Your task to perform on an android device: Open location settings Image 0: 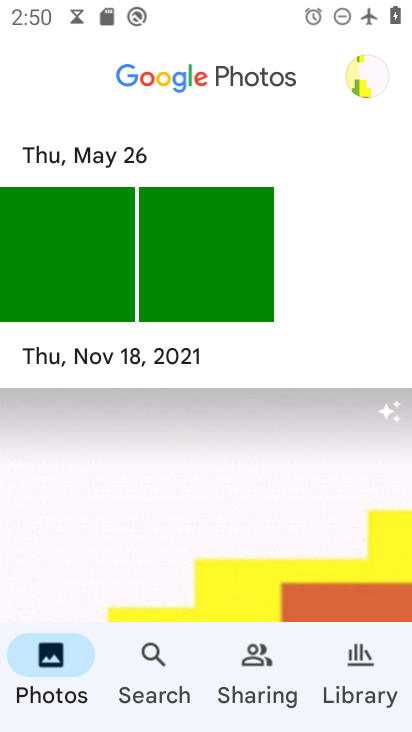
Step 0: press home button
Your task to perform on an android device: Open location settings Image 1: 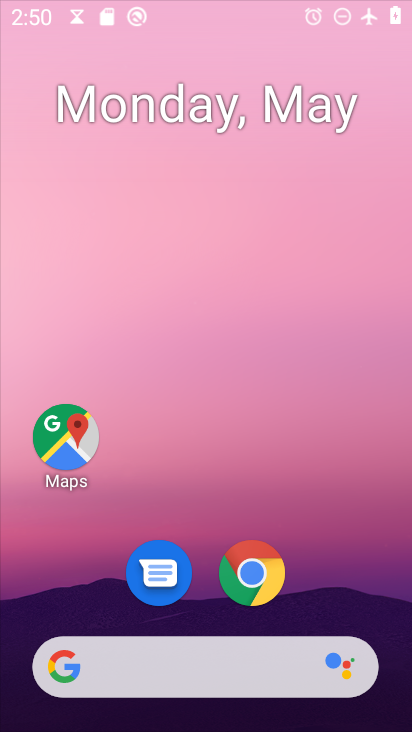
Step 1: drag from (289, 637) to (234, 19)
Your task to perform on an android device: Open location settings Image 2: 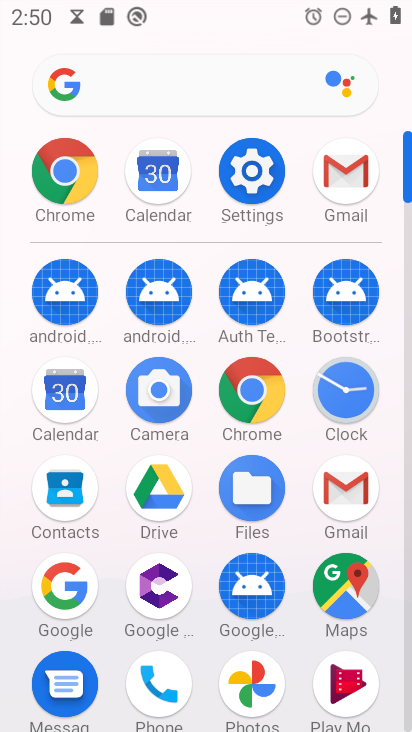
Step 2: click (253, 173)
Your task to perform on an android device: Open location settings Image 3: 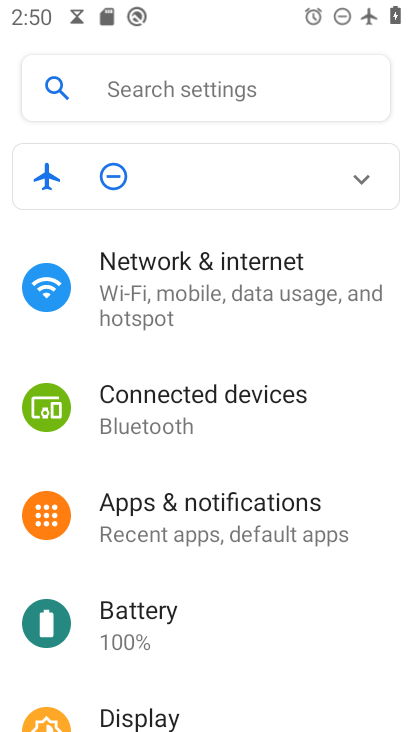
Step 3: drag from (229, 583) to (250, 130)
Your task to perform on an android device: Open location settings Image 4: 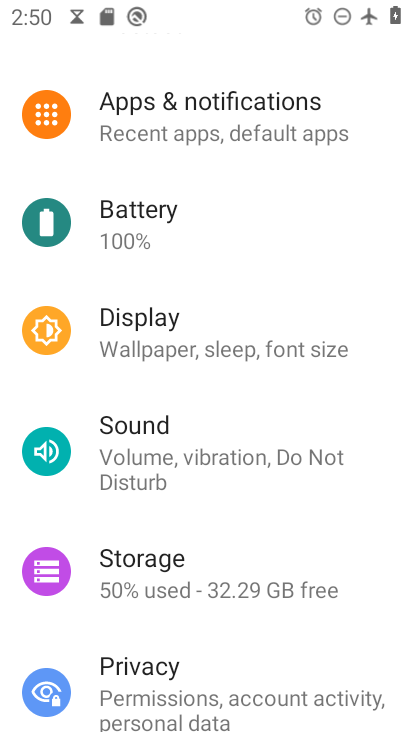
Step 4: drag from (183, 619) to (213, 200)
Your task to perform on an android device: Open location settings Image 5: 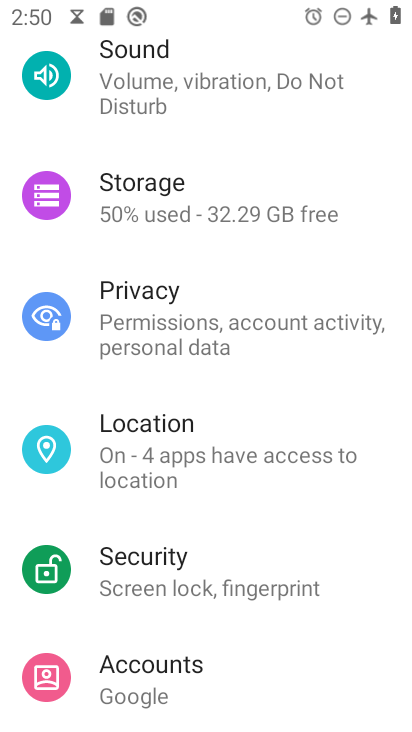
Step 5: click (203, 440)
Your task to perform on an android device: Open location settings Image 6: 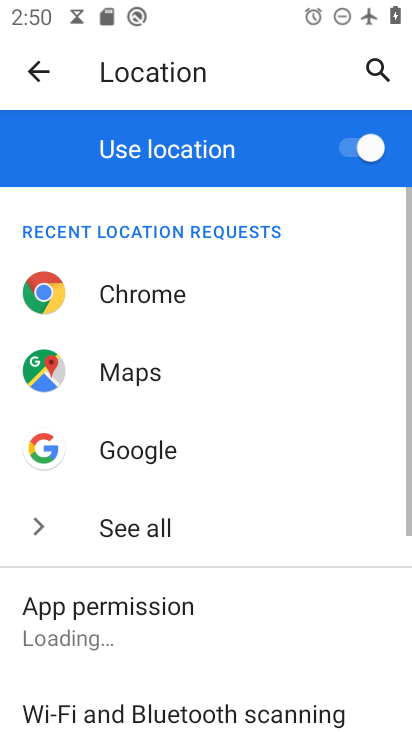
Step 6: task complete